Your task to perform on an android device: Go to Amazon Image 0: 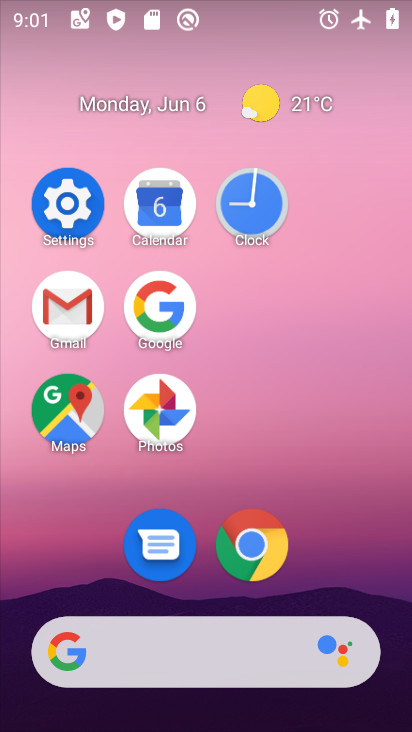
Step 0: click (281, 575)
Your task to perform on an android device: Go to Amazon Image 1: 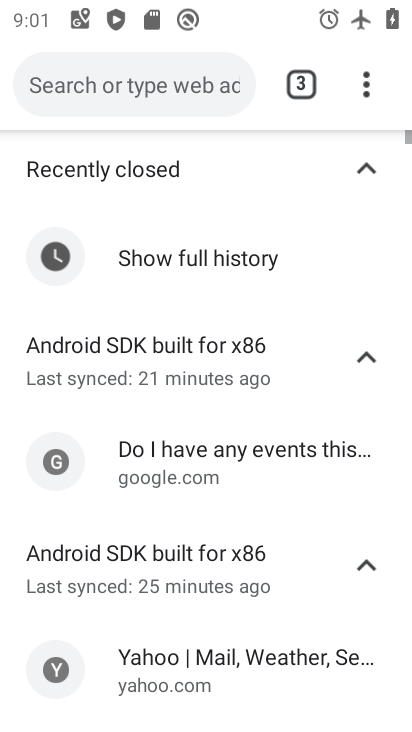
Step 1: click (284, 72)
Your task to perform on an android device: Go to Amazon Image 2: 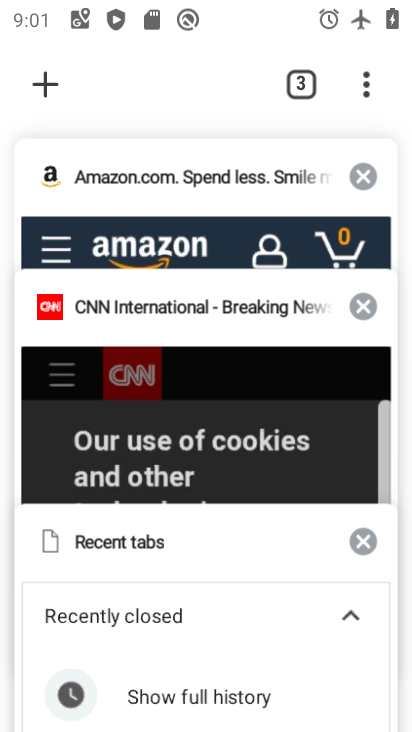
Step 2: click (141, 206)
Your task to perform on an android device: Go to Amazon Image 3: 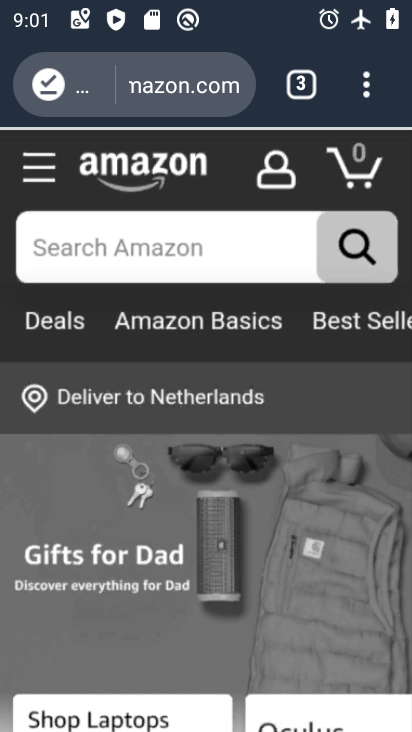
Step 3: task complete